Your task to perform on an android device: turn off sleep mode Image 0: 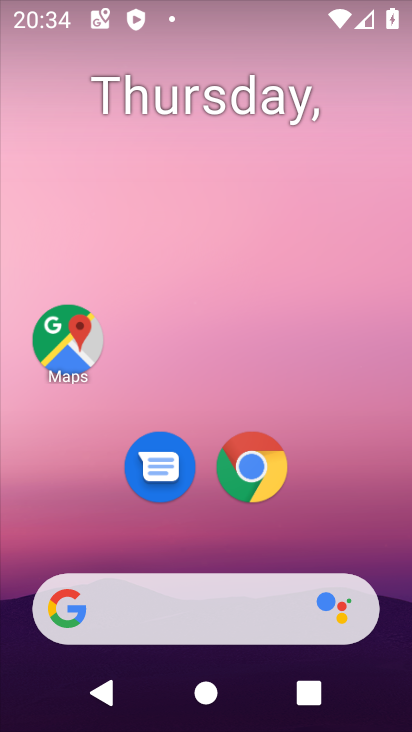
Step 0: drag from (333, 549) to (360, 159)
Your task to perform on an android device: turn off sleep mode Image 1: 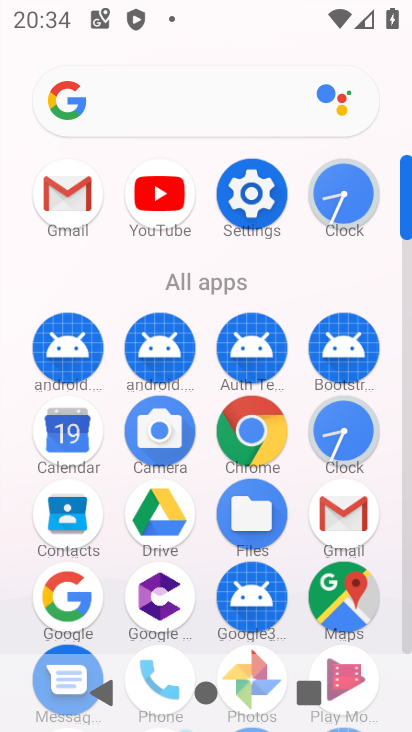
Step 1: click (248, 187)
Your task to perform on an android device: turn off sleep mode Image 2: 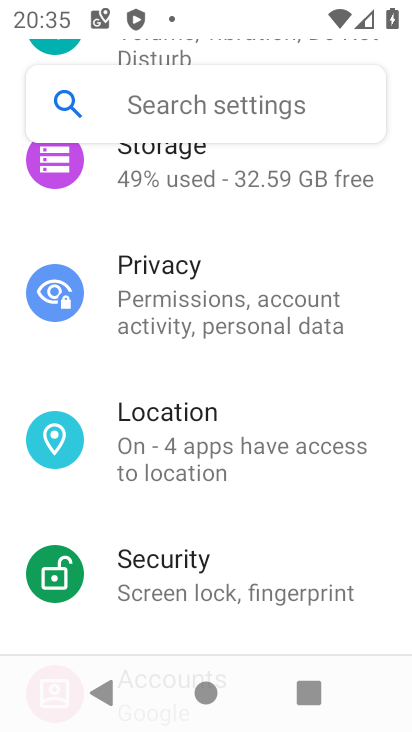
Step 2: task complete